Your task to perform on an android device: Go to Android settings Image 0: 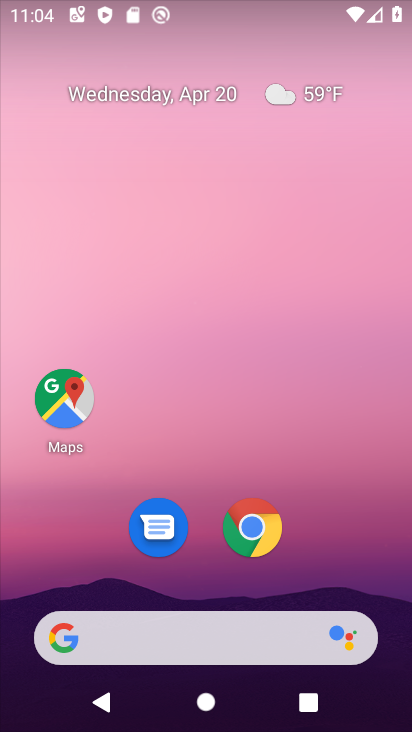
Step 0: drag from (271, 578) to (310, 122)
Your task to perform on an android device: Go to Android settings Image 1: 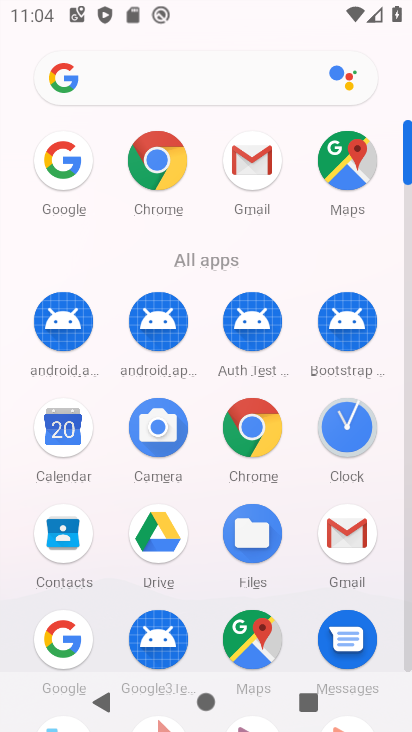
Step 1: drag from (175, 581) to (239, 173)
Your task to perform on an android device: Go to Android settings Image 2: 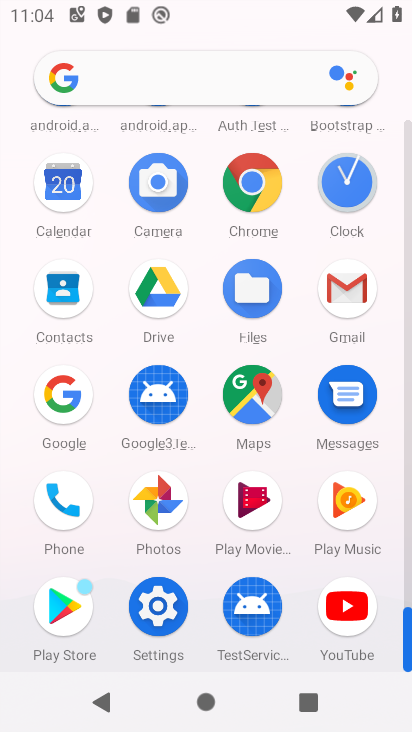
Step 2: click (160, 621)
Your task to perform on an android device: Go to Android settings Image 3: 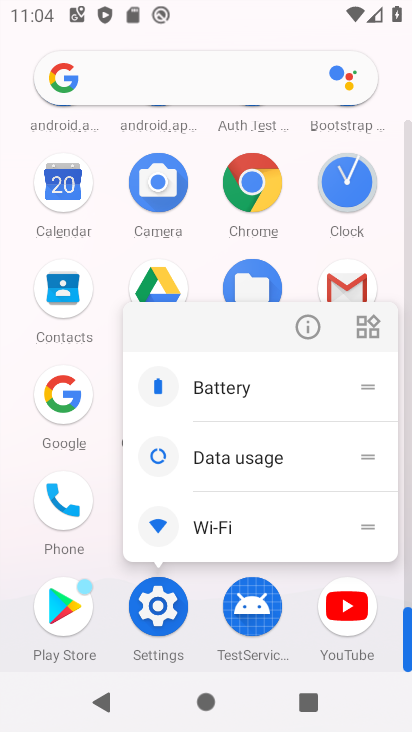
Step 3: click (155, 615)
Your task to perform on an android device: Go to Android settings Image 4: 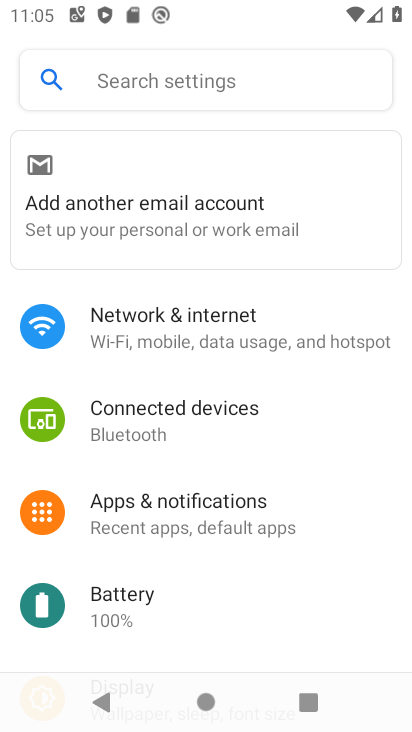
Step 4: task complete